Your task to perform on an android device: change your default location settings in chrome Image 0: 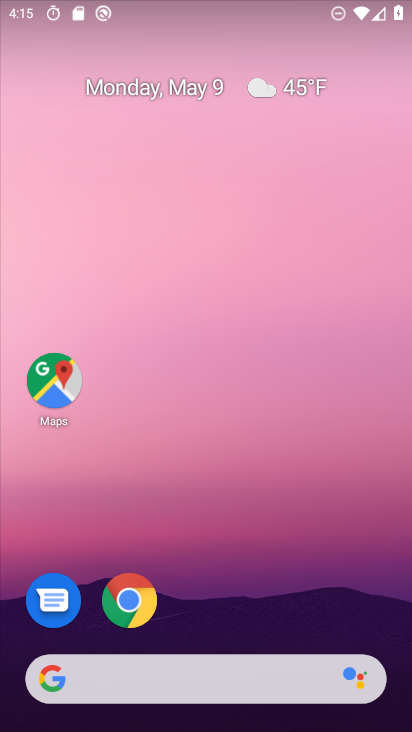
Step 0: drag from (225, 547) to (226, 10)
Your task to perform on an android device: change your default location settings in chrome Image 1: 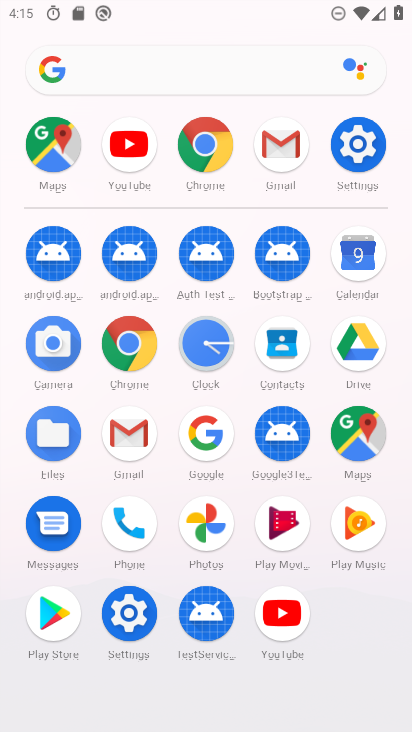
Step 1: drag from (2, 590) to (13, 274)
Your task to perform on an android device: change your default location settings in chrome Image 2: 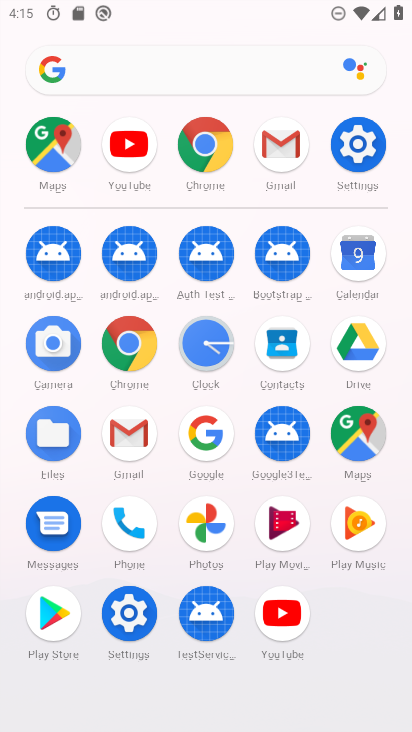
Step 2: click (127, 342)
Your task to perform on an android device: change your default location settings in chrome Image 3: 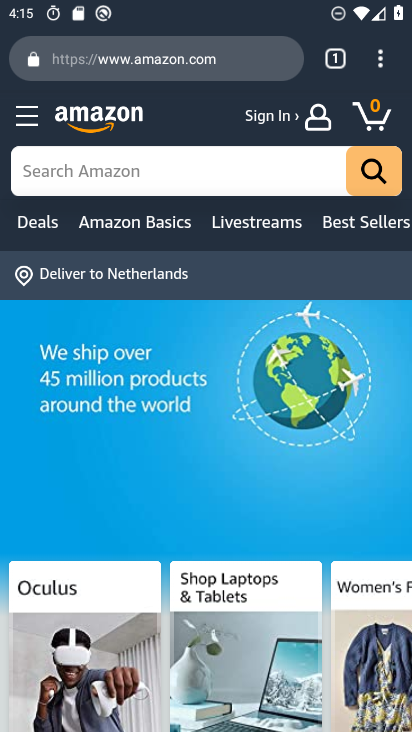
Step 3: drag from (377, 60) to (180, 618)
Your task to perform on an android device: change your default location settings in chrome Image 4: 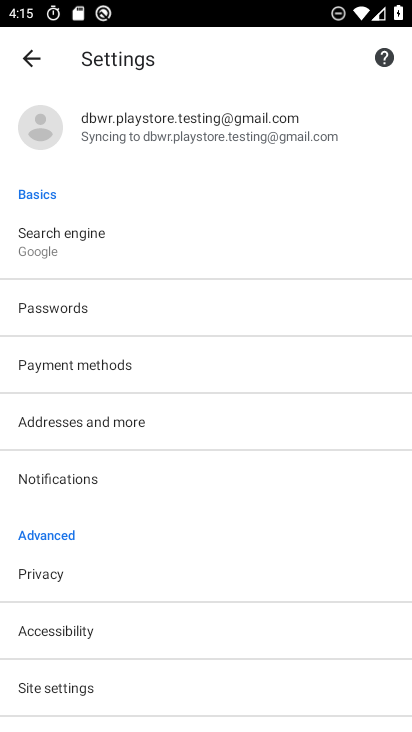
Step 4: drag from (148, 547) to (183, 202)
Your task to perform on an android device: change your default location settings in chrome Image 5: 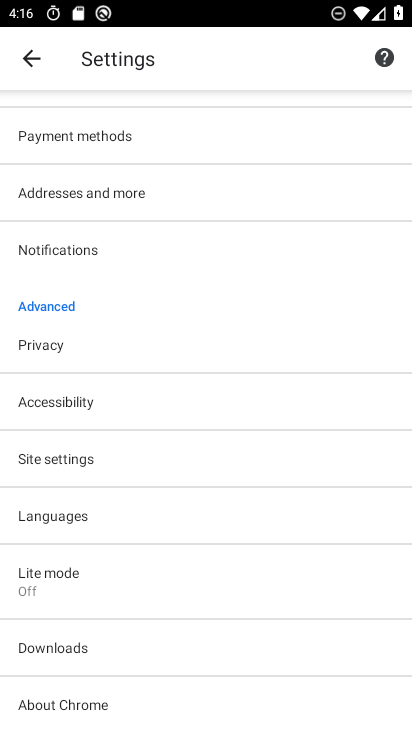
Step 5: click (80, 469)
Your task to perform on an android device: change your default location settings in chrome Image 6: 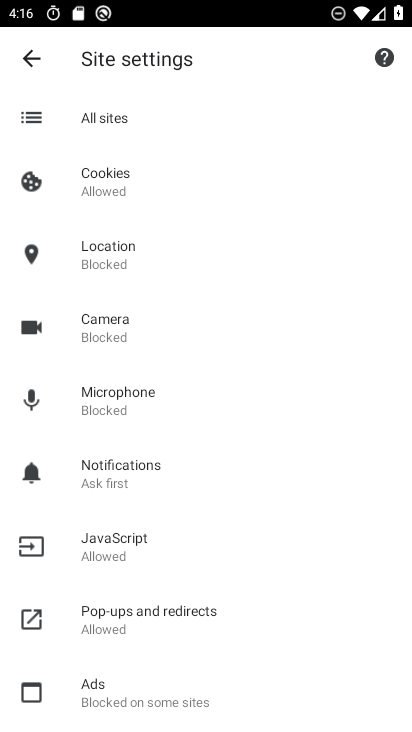
Step 6: click (165, 260)
Your task to perform on an android device: change your default location settings in chrome Image 7: 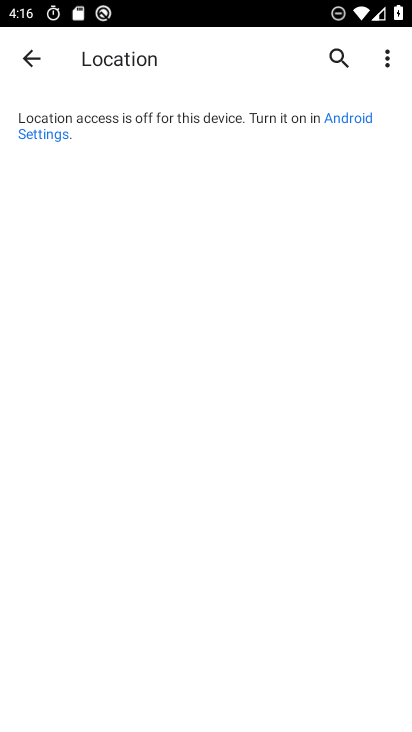
Step 7: click (358, 116)
Your task to perform on an android device: change your default location settings in chrome Image 8: 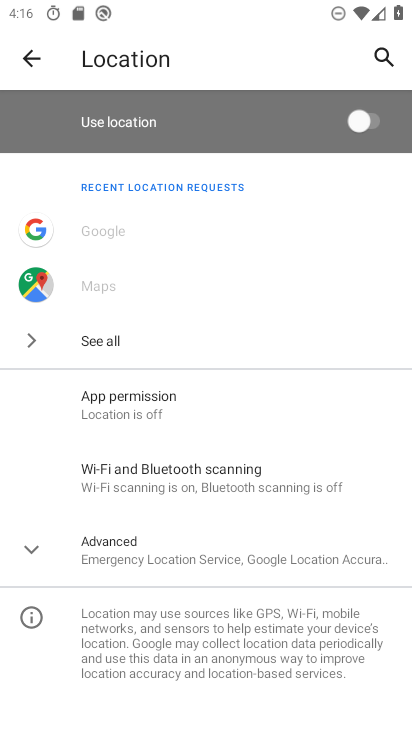
Step 8: click (363, 120)
Your task to perform on an android device: change your default location settings in chrome Image 9: 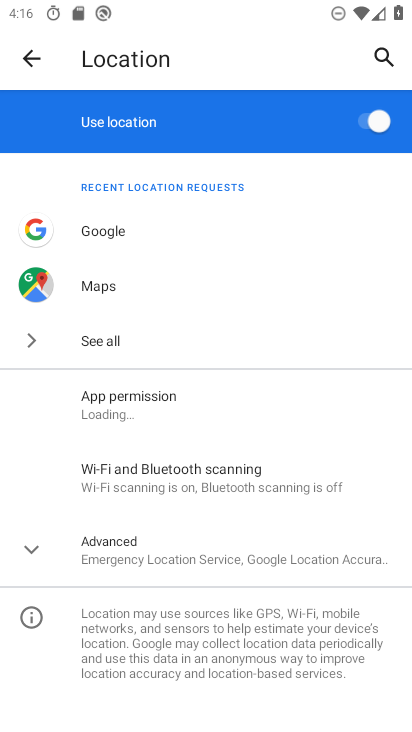
Step 9: click (38, 52)
Your task to perform on an android device: change your default location settings in chrome Image 10: 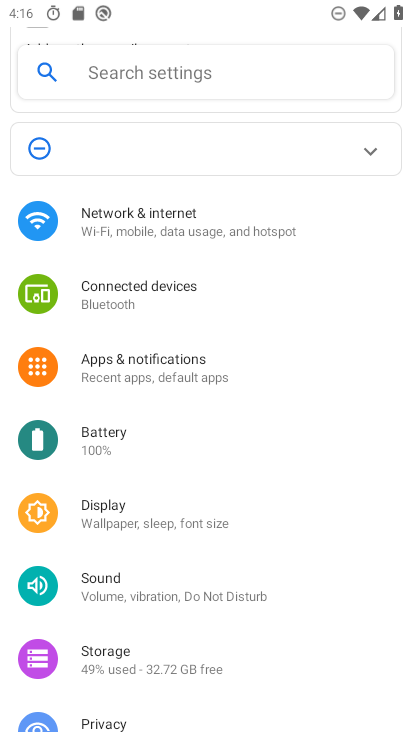
Step 10: click (38, 52)
Your task to perform on an android device: change your default location settings in chrome Image 11: 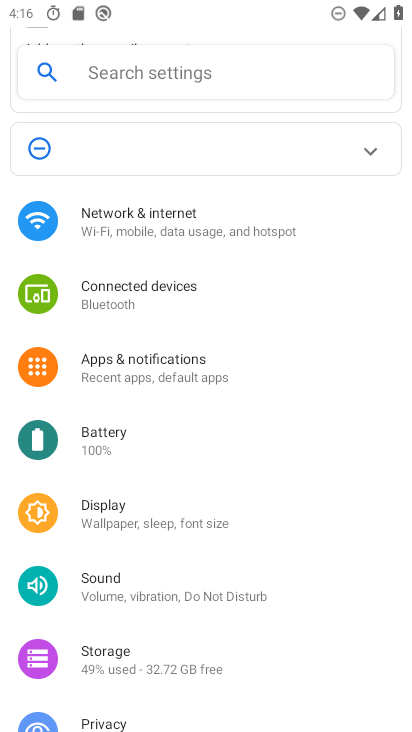
Step 11: press back button
Your task to perform on an android device: change your default location settings in chrome Image 12: 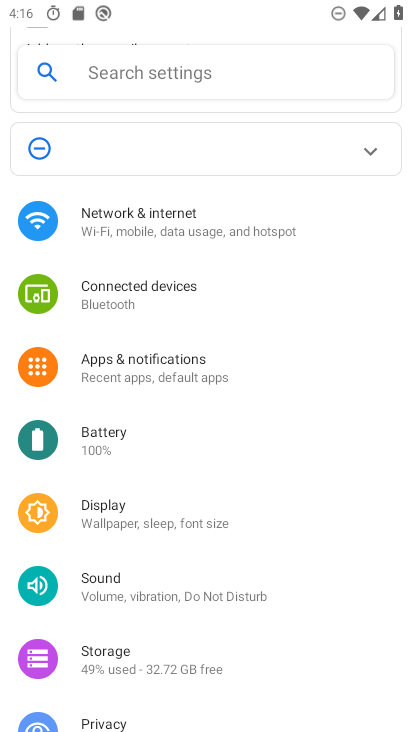
Step 12: press back button
Your task to perform on an android device: change your default location settings in chrome Image 13: 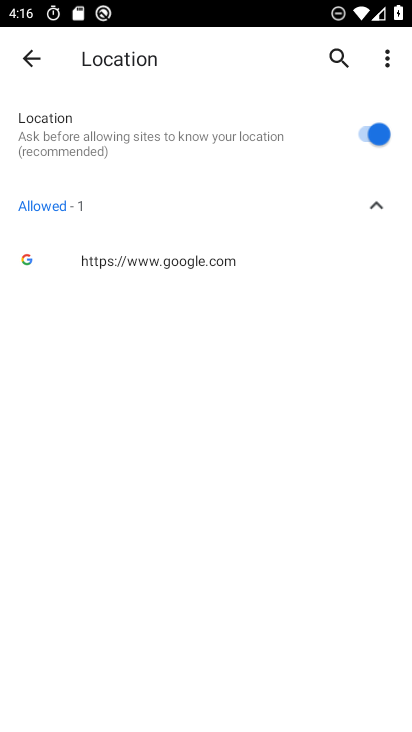
Step 13: click (358, 136)
Your task to perform on an android device: change your default location settings in chrome Image 14: 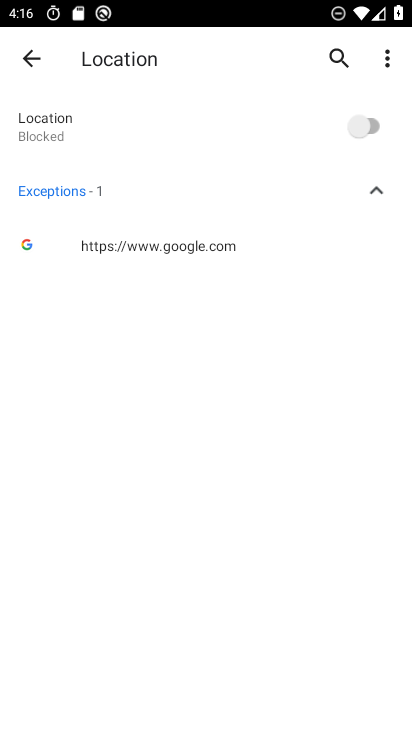
Step 14: task complete